Your task to perform on an android device: change alarm snooze length Image 0: 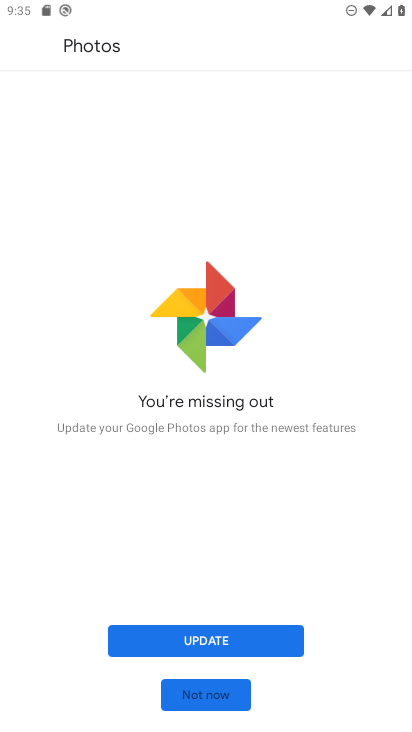
Step 0: press home button
Your task to perform on an android device: change alarm snooze length Image 1: 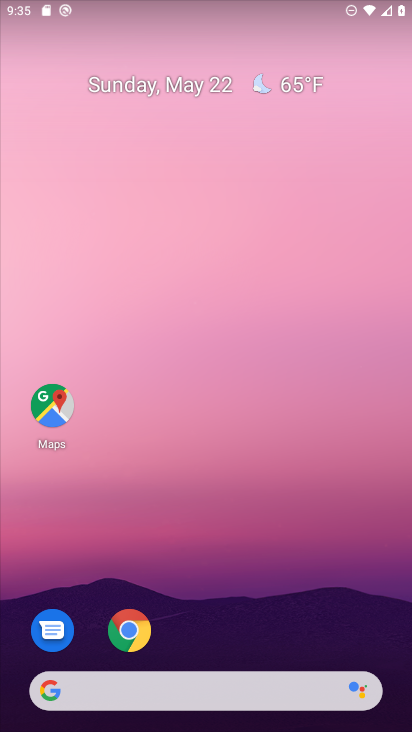
Step 1: drag from (185, 685) to (226, 82)
Your task to perform on an android device: change alarm snooze length Image 2: 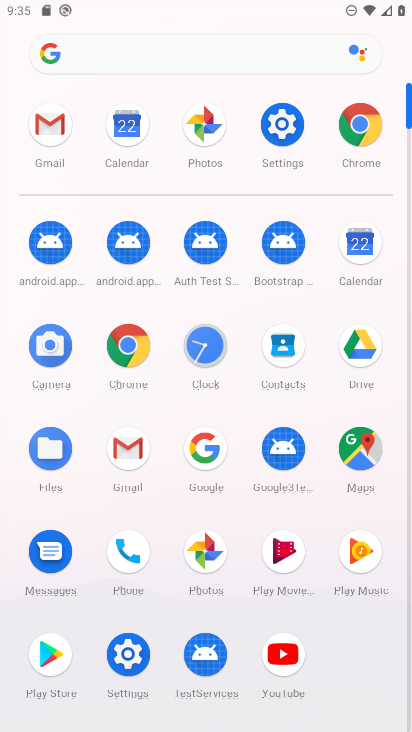
Step 2: click (211, 356)
Your task to perform on an android device: change alarm snooze length Image 3: 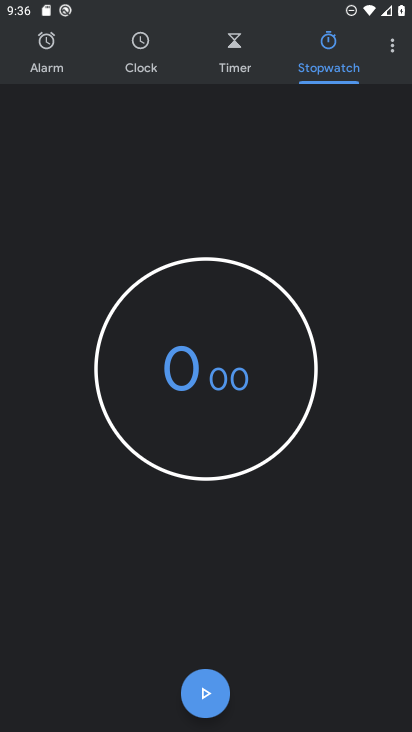
Step 3: click (394, 48)
Your task to perform on an android device: change alarm snooze length Image 4: 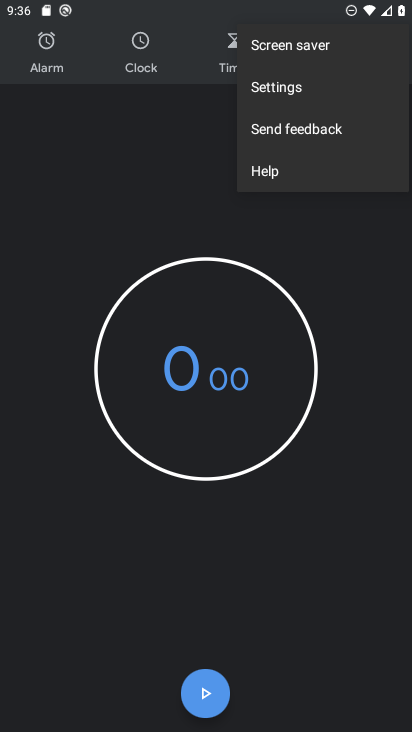
Step 4: click (294, 86)
Your task to perform on an android device: change alarm snooze length Image 5: 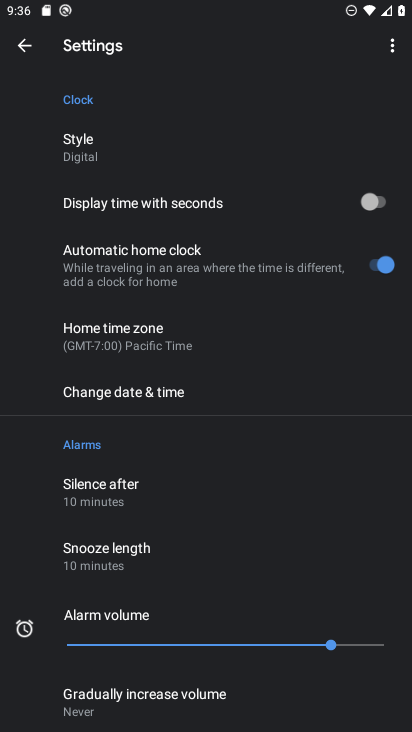
Step 5: click (138, 570)
Your task to perform on an android device: change alarm snooze length Image 6: 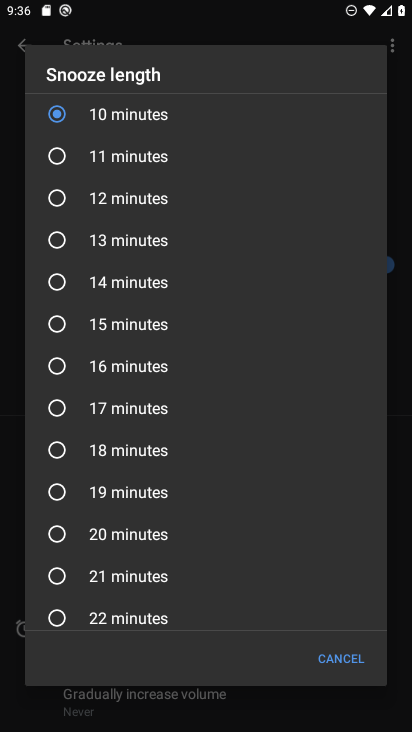
Step 6: click (58, 323)
Your task to perform on an android device: change alarm snooze length Image 7: 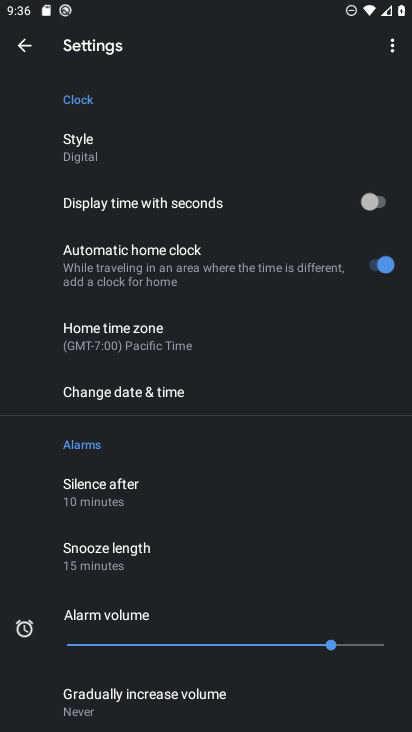
Step 7: task complete